Your task to perform on an android device: Go to Google maps Image 0: 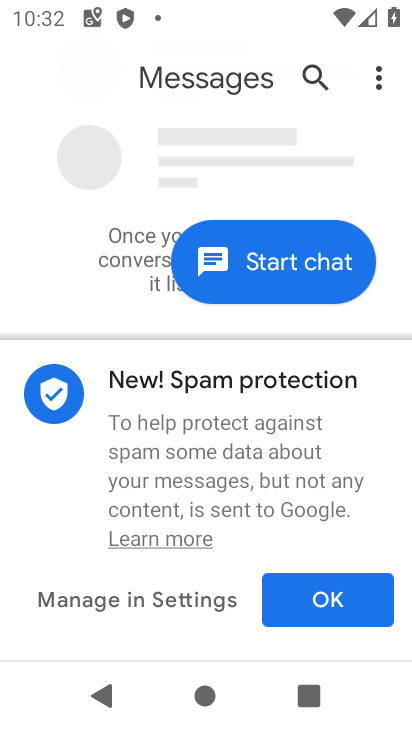
Step 0: press back button
Your task to perform on an android device: Go to Google maps Image 1: 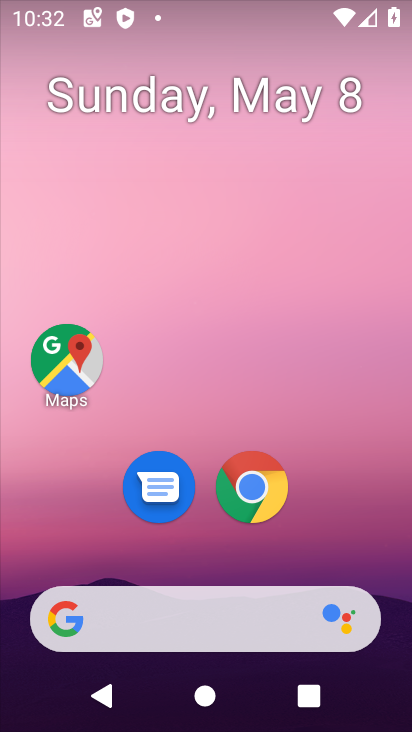
Step 1: click (75, 355)
Your task to perform on an android device: Go to Google maps Image 2: 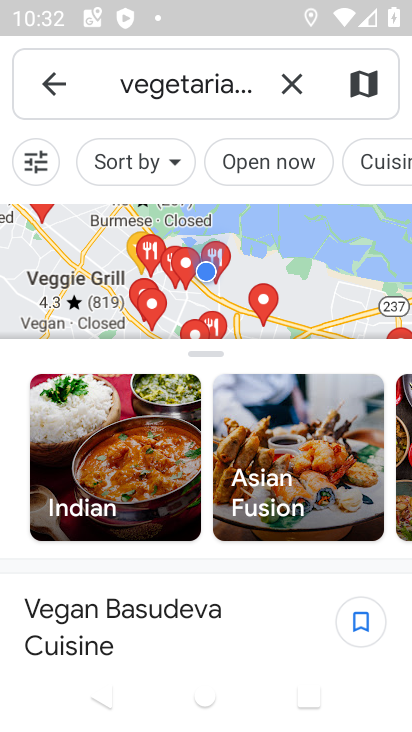
Step 2: task complete